Your task to perform on an android device: Open Youtube and go to "Your channel" Image 0: 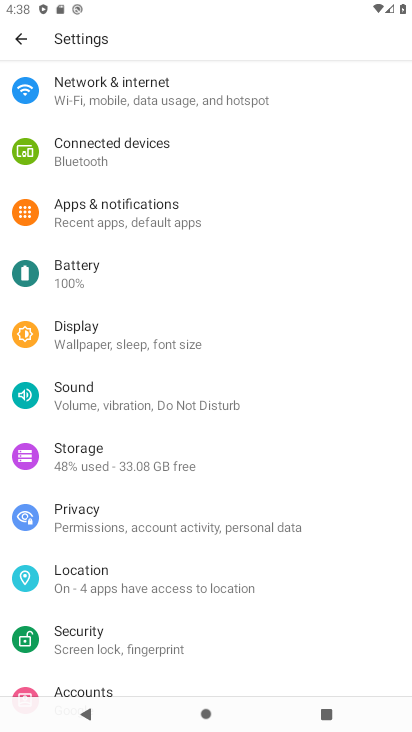
Step 0: press home button
Your task to perform on an android device: Open Youtube and go to "Your channel" Image 1: 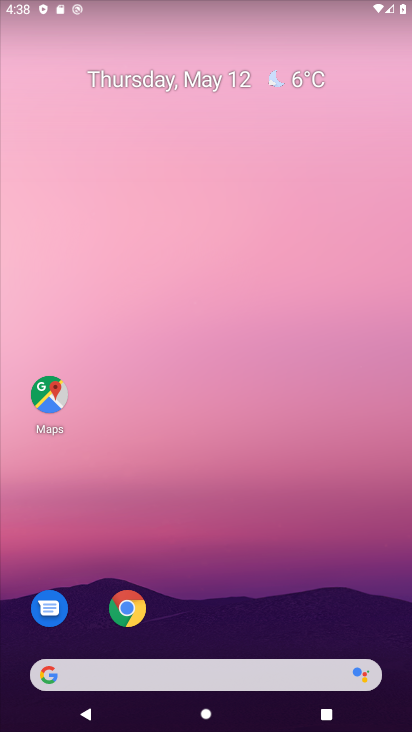
Step 1: drag from (258, 594) to (298, 100)
Your task to perform on an android device: Open Youtube and go to "Your channel" Image 2: 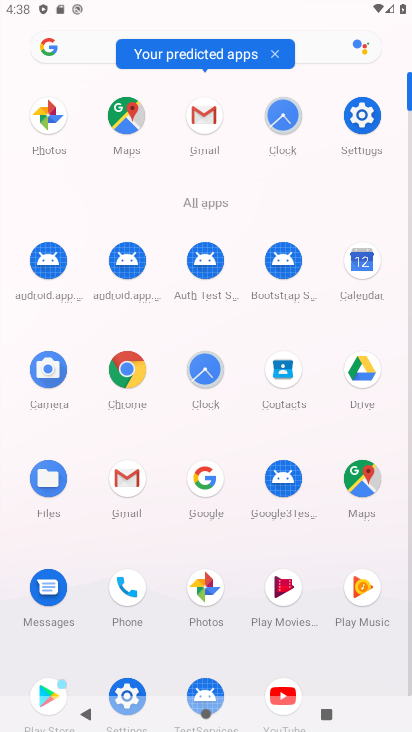
Step 2: click (276, 687)
Your task to perform on an android device: Open Youtube and go to "Your channel" Image 3: 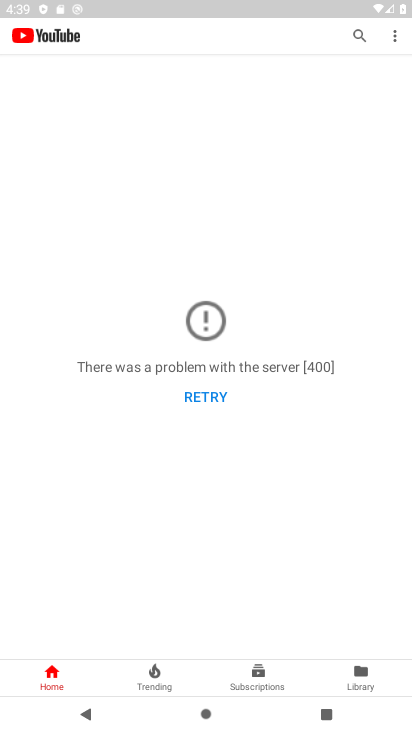
Step 3: task complete